Your task to perform on an android device: toggle airplane mode Image 0: 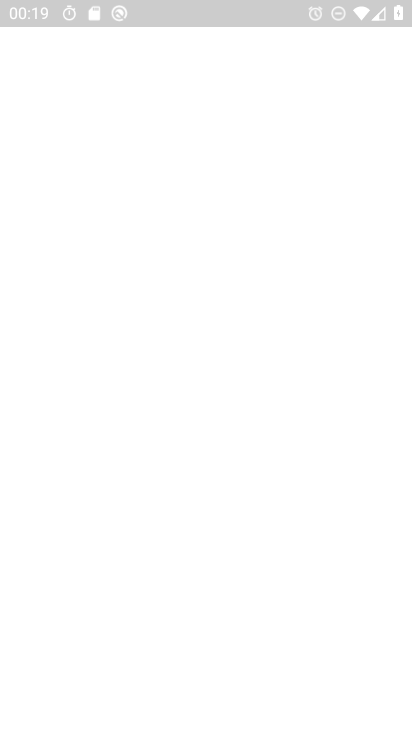
Step 0: press home button
Your task to perform on an android device: toggle airplane mode Image 1: 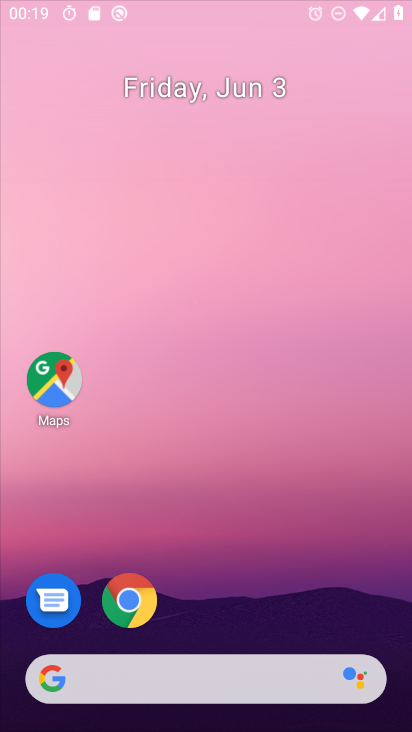
Step 1: press home button
Your task to perform on an android device: toggle airplane mode Image 2: 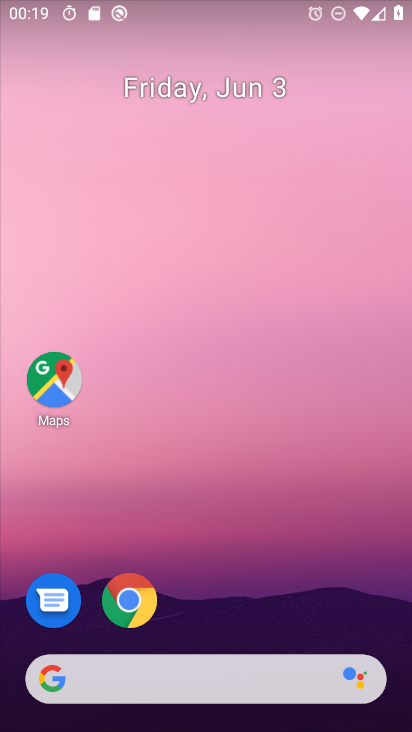
Step 2: drag from (221, 621) to (243, 81)
Your task to perform on an android device: toggle airplane mode Image 3: 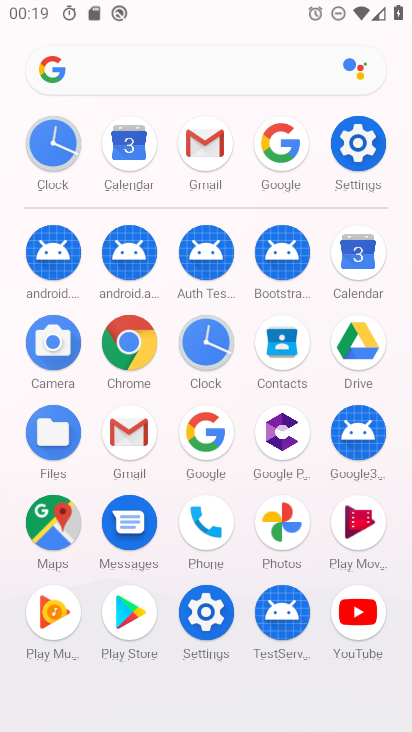
Step 3: click (360, 142)
Your task to perform on an android device: toggle airplane mode Image 4: 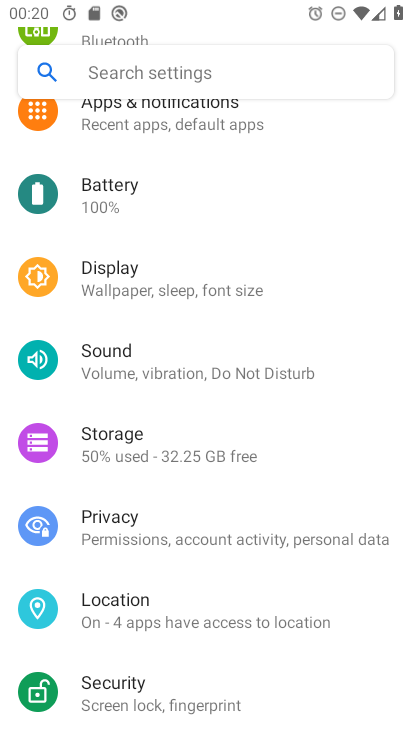
Step 4: drag from (170, 166) to (201, 439)
Your task to perform on an android device: toggle airplane mode Image 5: 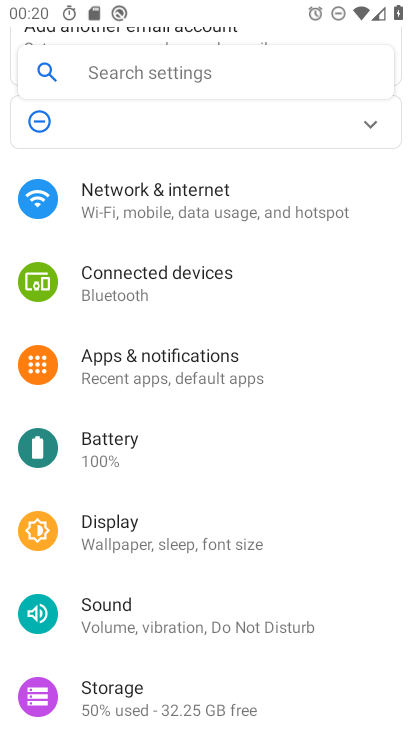
Step 5: click (155, 192)
Your task to perform on an android device: toggle airplane mode Image 6: 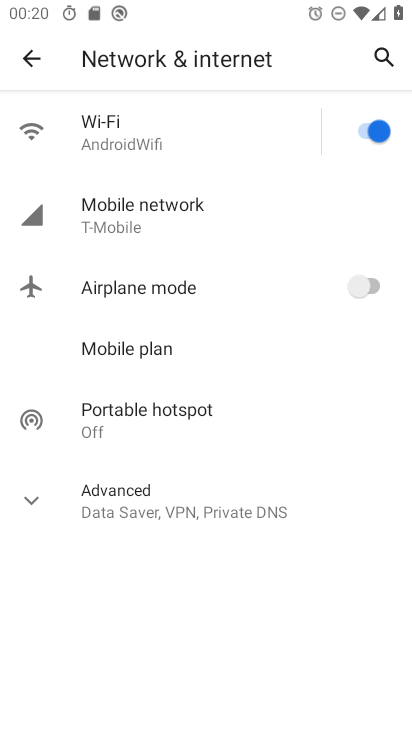
Step 6: click (370, 280)
Your task to perform on an android device: toggle airplane mode Image 7: 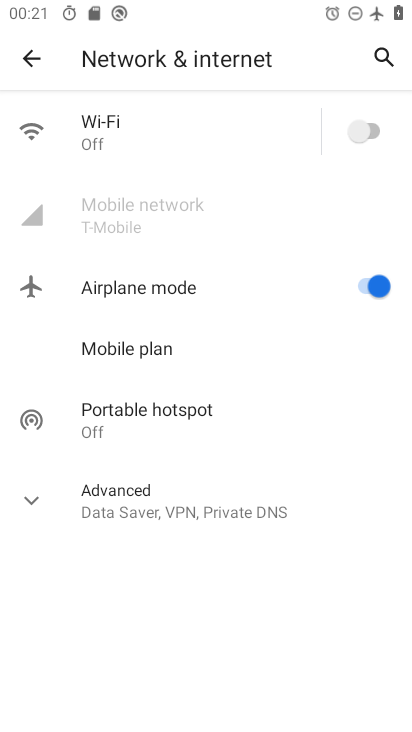
Step 7: task complete